Your task to perform on an android device: Open Yahoo.com Image 0: 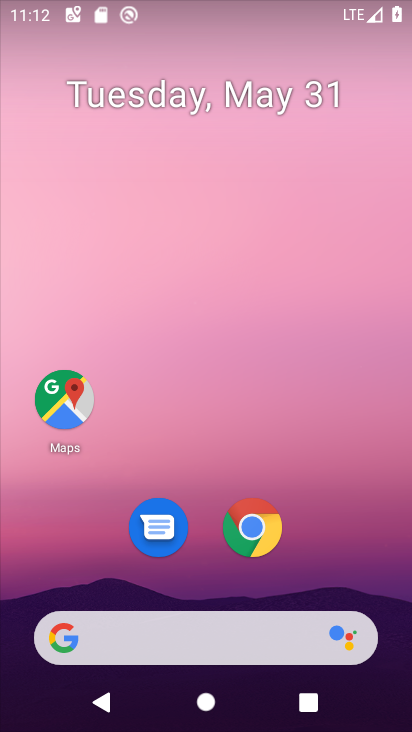
Step 0: click (239, 523)
Your task to perform on an android device: Open Yahoo.com Image 1: 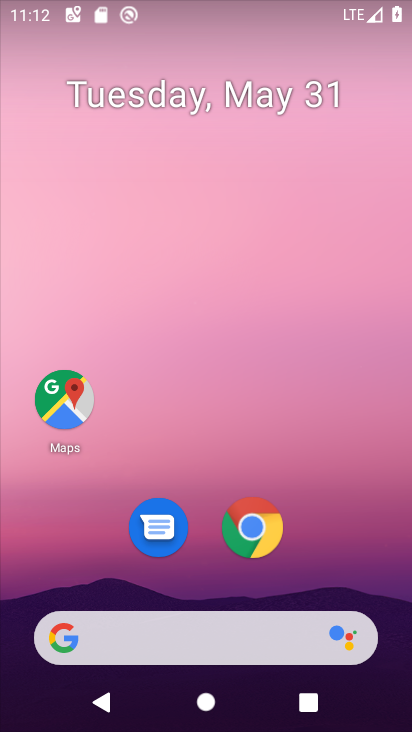
Step 1: click (239, 523)
Your task to perform on an android device: Open Yahoo.com Image 2: 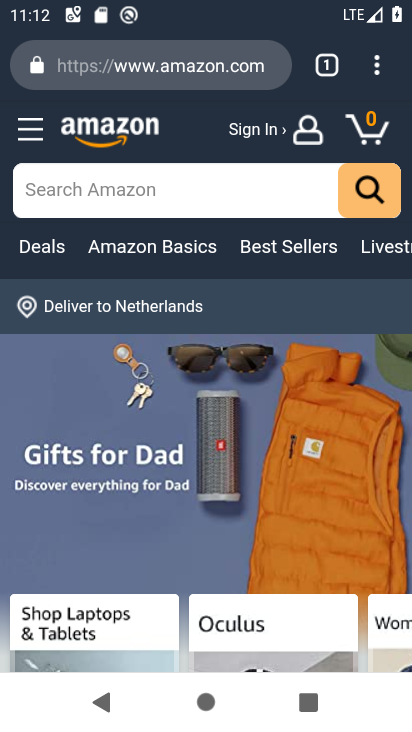
Step 2: click (123, 76)
Your task to perform on an android device: Open Yahoo.com Image 3: 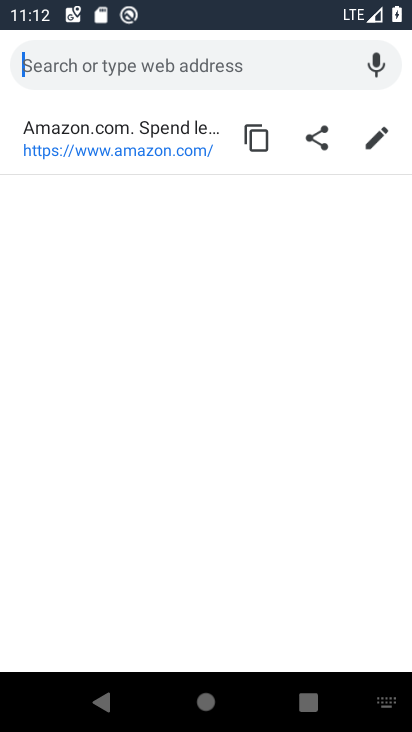
Step 3: type "yahoo.com"
Your task to perform on an android device: Open Yahoo.com Image 4: 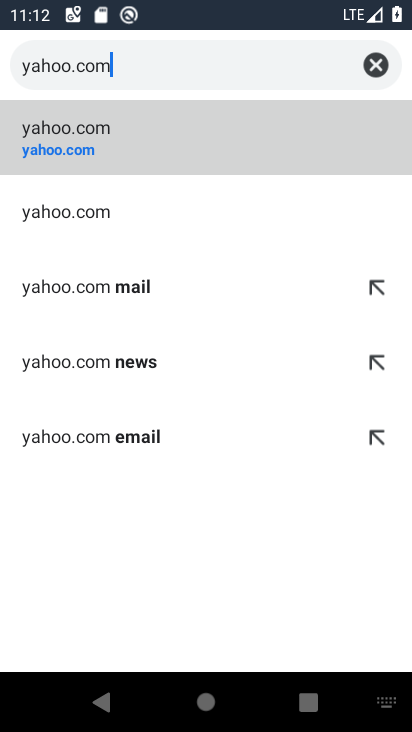
Step 4: click (70, 130)
Your task to perform on an android device: Open Yahoo.com Image 5: 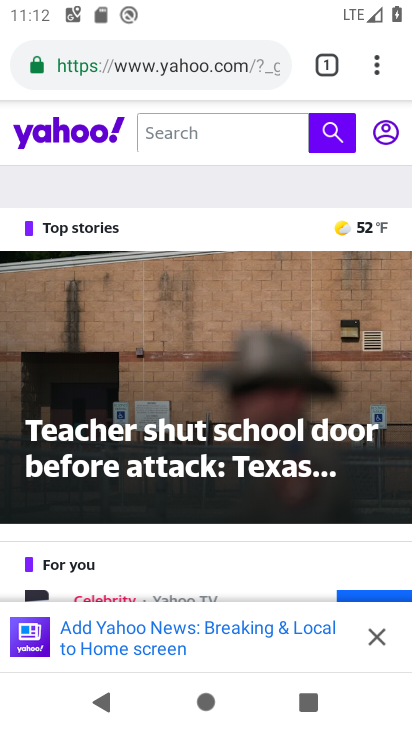
Step 5: task complete